Your task to perform on an android device: Turn on the flashlight Image 0: 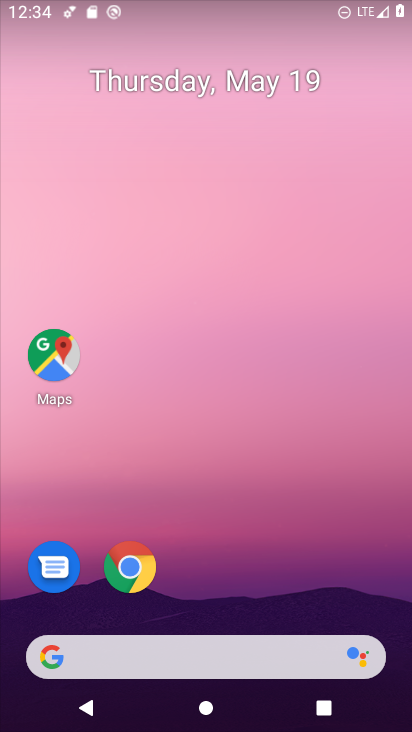
Step 0: click (270, 61)
Your task to perform on an android device: Turn on the flashlight Image 1: 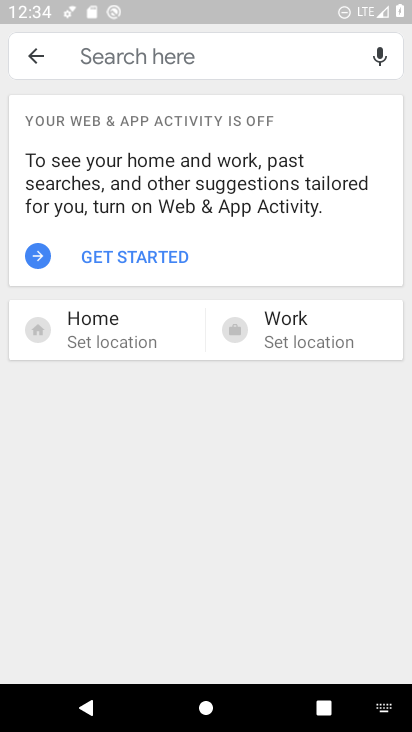
Step 1: press home button
Your task to perform on an android device: Turn on the flashlight Image 2: 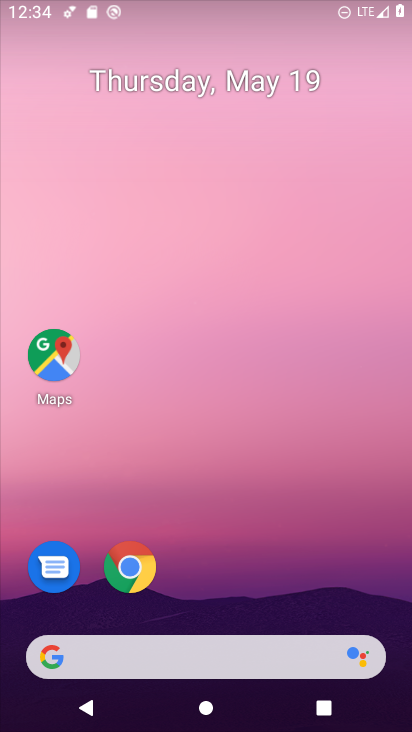
Step 2: drag from (239, 572) to (279, 118)
Your task to perform on an android device: Turn on the flashlight Image 3: 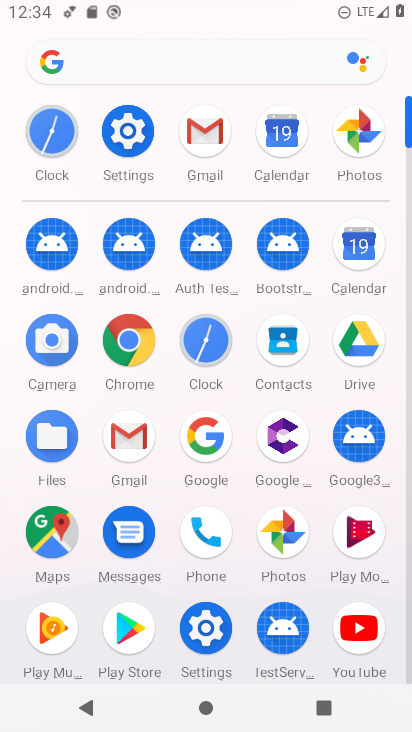
Step 3: click (125, 127)
Your task to perform on an android device: Turn on the flashlight Image 4: 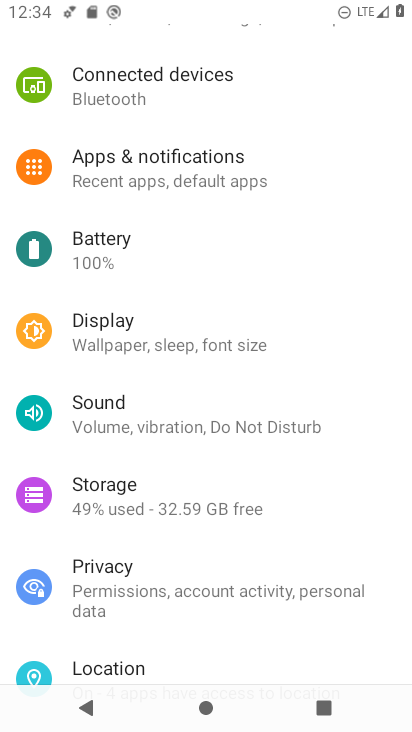
Step 4: drag from (217, 225) to (208, 449)
Your task to perform on an android device: Turn on the flashlight Image 5: 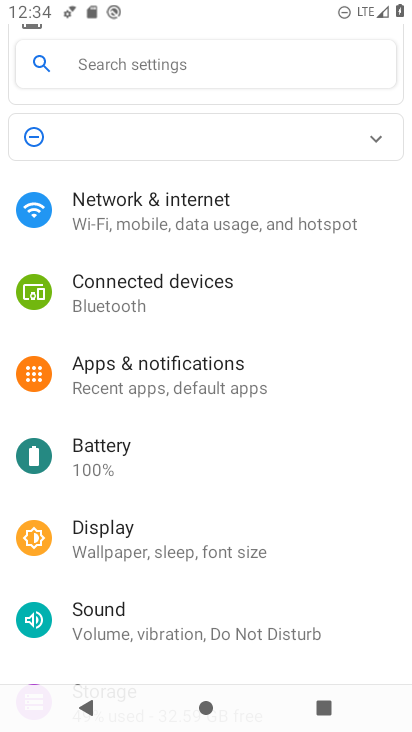
Step 5: drag from (232, 342) to (242, 574)
Your task to perform on an android device: Turn on the flashlight Image 6: 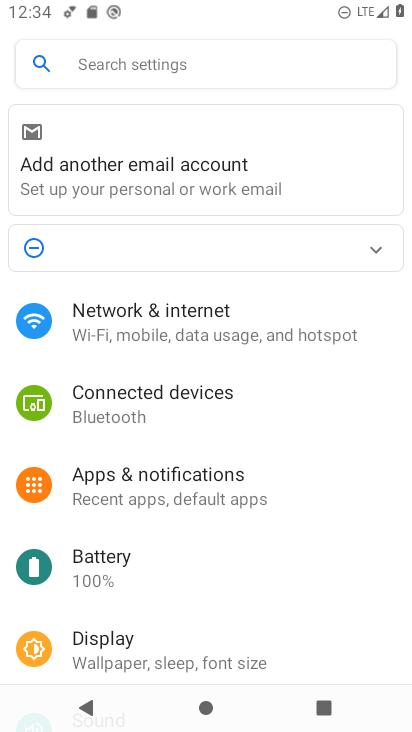
Step 6: click (293, 59)
Your task to perform on an android device: Turn on the flashlight Image 7: 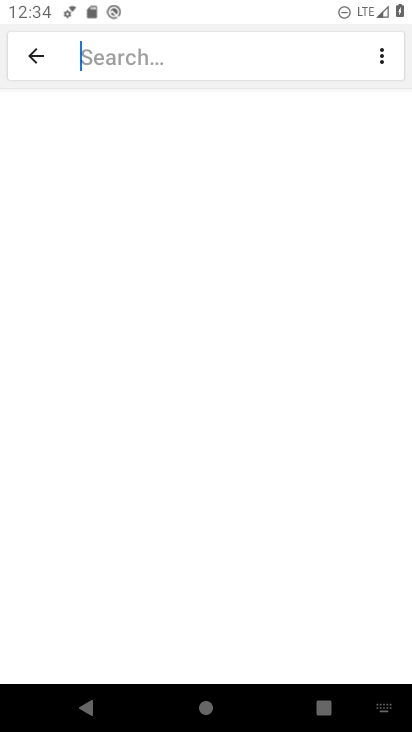
Step 7: type "Flashlight"
Your task to perform on an android device: Turn on the flashlight Image 8: 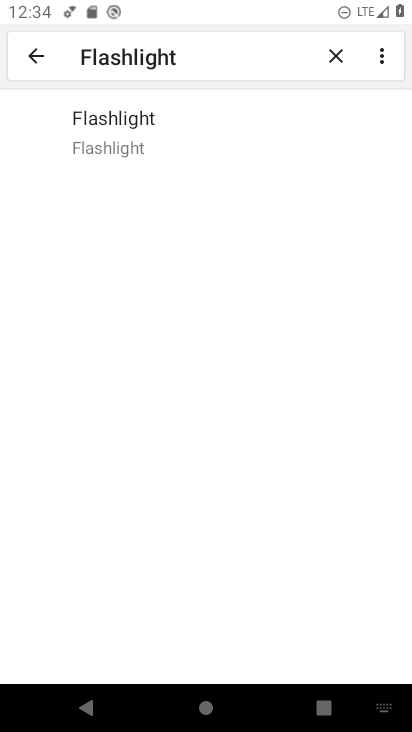
Step 8: click (133, 126)
Your task to perform on an android device: Turn on the flashlight Image 9: 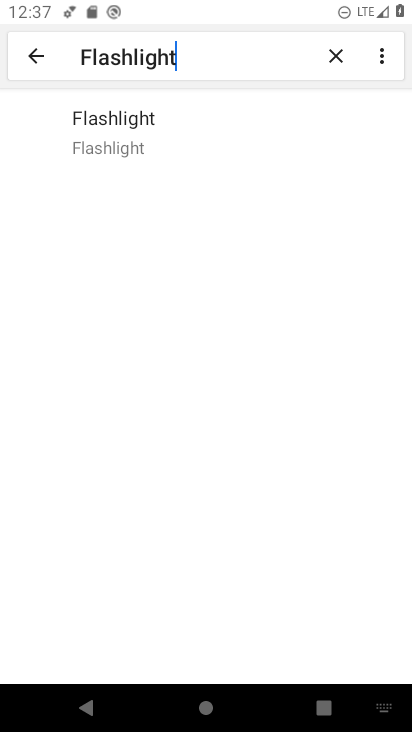
Step 9: task complete